Your task to perform on an android device: toggle javascript in the chrome app Image 0: 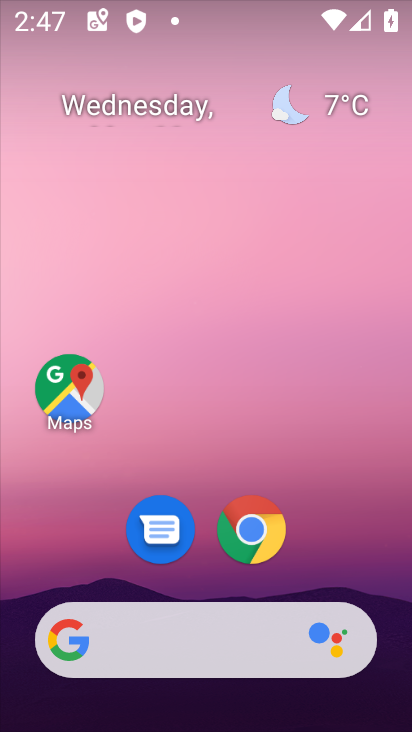
Step 0: press back button
Your task to perform on an android device: toggle javascript in the chrome app Image 1: 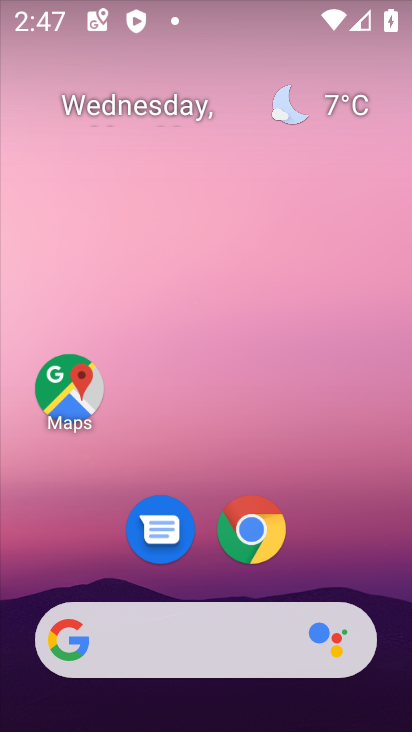
Step 1: click (241, 533)
Your task to perform on an android device: toggle javascript in the chrome app Image 2: 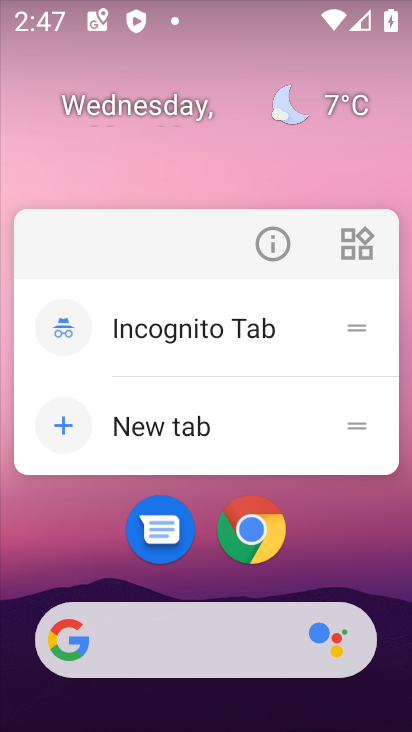
Step 2: click (273, 248)
Your task to perform on an android device: toggle javascript in the chrome app Image 3: 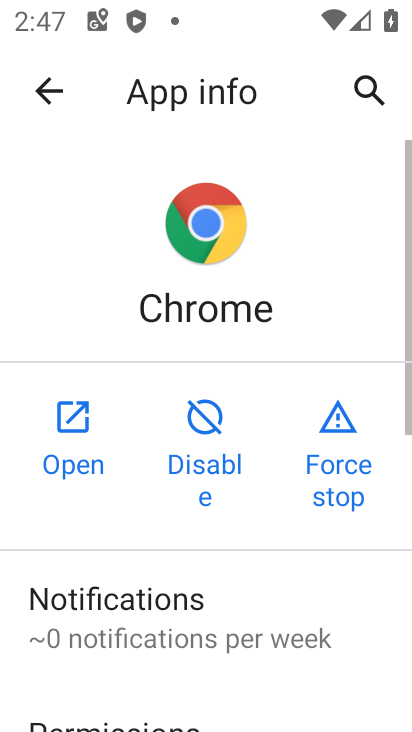
Step 3: click (77, 411)
Your task to perform on an android device: toggle javascript in the chrome app Image 4: 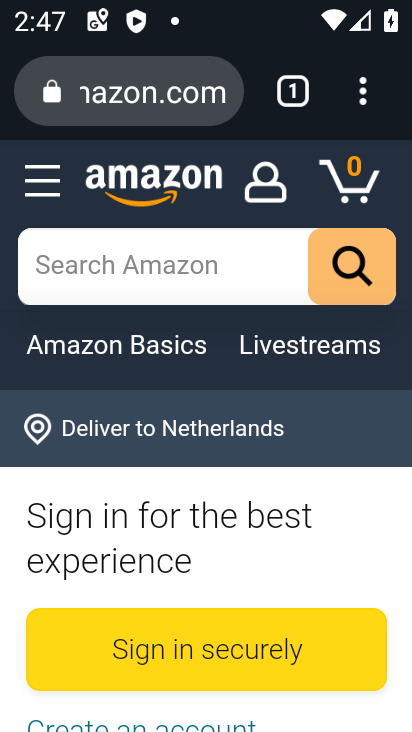
Step 4: click (343, 96)
Your task to perform on an android device: toggle javascript in the chrome app Image 5: 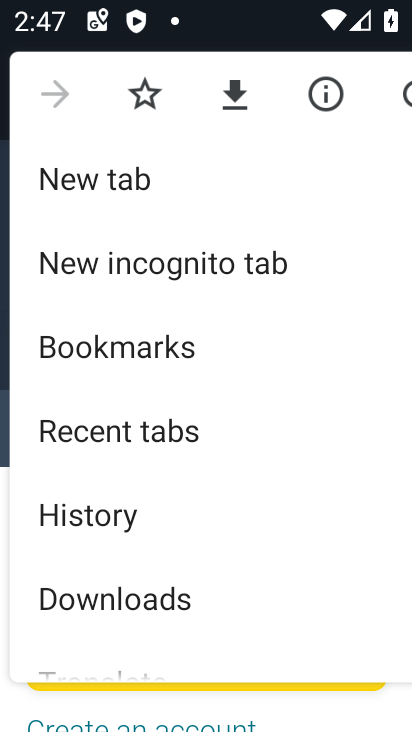
Step 5: drag from (114, 643) to (315, 203)
Your task to perform on an android device: toggle javascript in the chrome app Image 6: 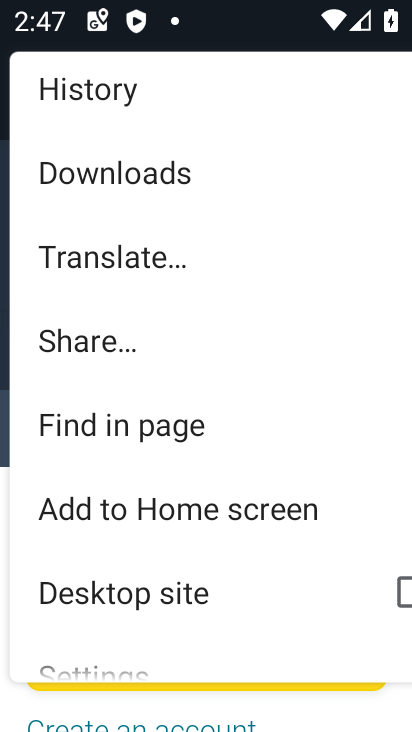
Step 6: drag from (102, 605) to (302, 207)
Your task to perform on an android device: toggle javascript in the chrome app Image 7: 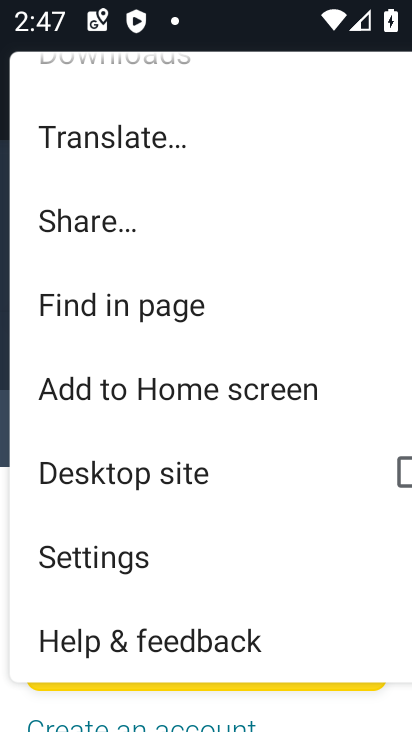
Step 7: click (117, 548)
Your task to perform on an android device: toggle javascript in the chrome app Image 8: 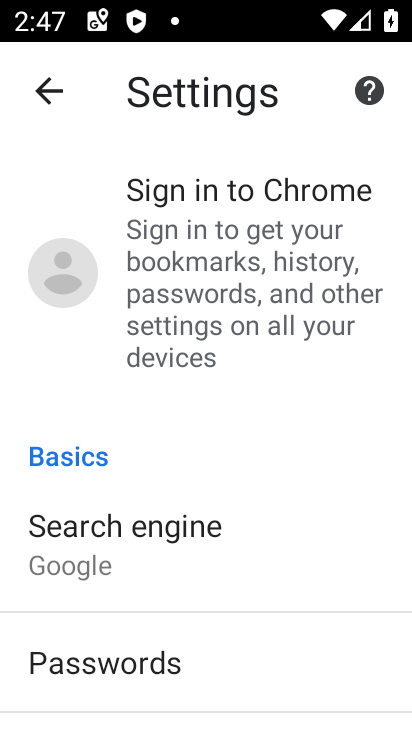
Step 8: drag from (139, 658) to (242, 173)
Your task to perform on an android device: toggle javascript in the chrome app Image 9: 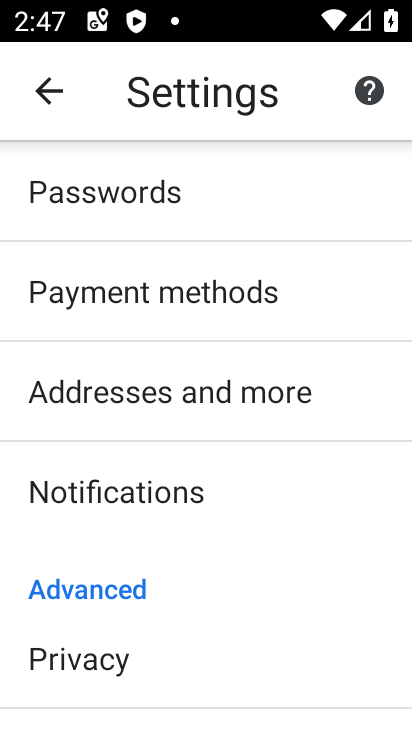
Step 9: drag from (74, 658) to (216, 166)
Your task to perform on an android device: toggle javascript in the chrome app Image 10: 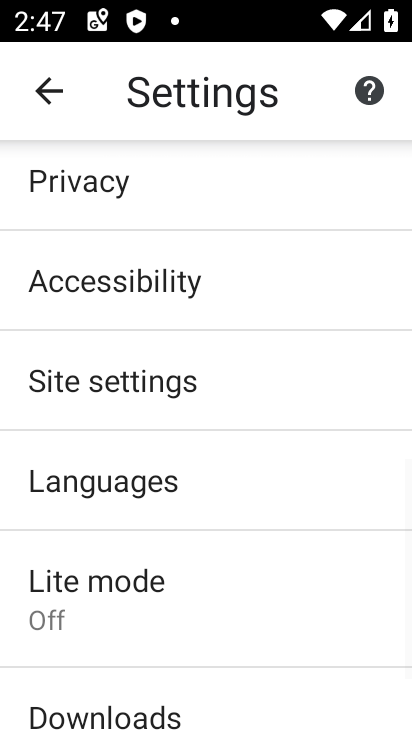
Step 10: click (132, 391)
Your task to perform on an android device: toggle javascript in the chrome app Image 11: 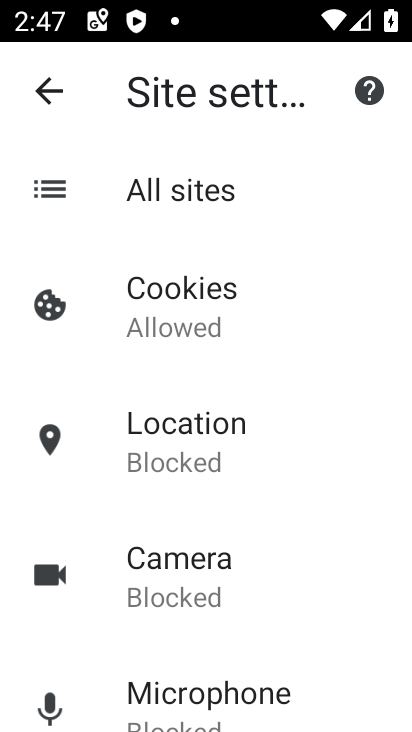
Step 11: drag from (145, 672) to (252, 235)
Your task to perform on an android device: toggle javascript in the chrome app Image 12: 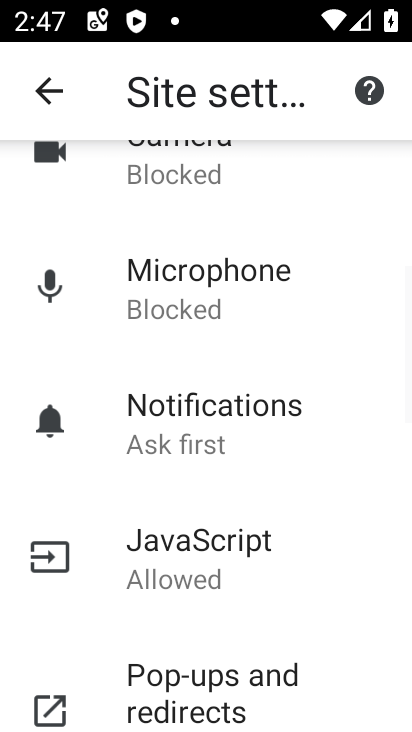
Step 12: click (192, 548)
Your task to perform on an android device: toggle javascript in the chrome app Image 13: 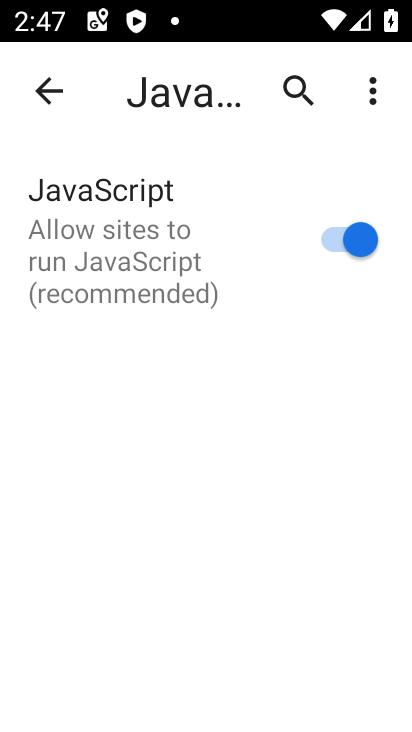
Step 13: click (326, 251)
Your task to perform on an android device: toggle javascript in the chrome app Image 14: 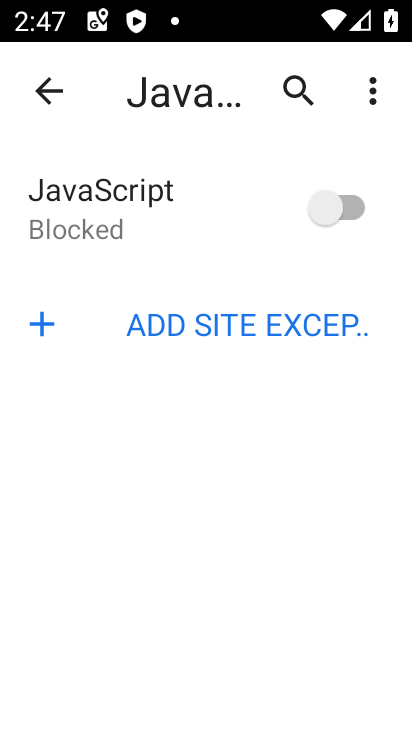
Step 14: task complete